Your task to perform on an android device: Open Google Maps Image 0: 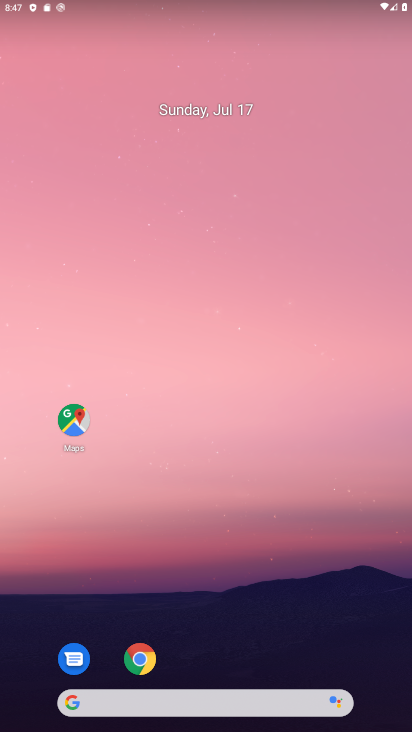
Step 0: click (66, 412)
Your task to perform on an android device: Open Google Maps Image 1: 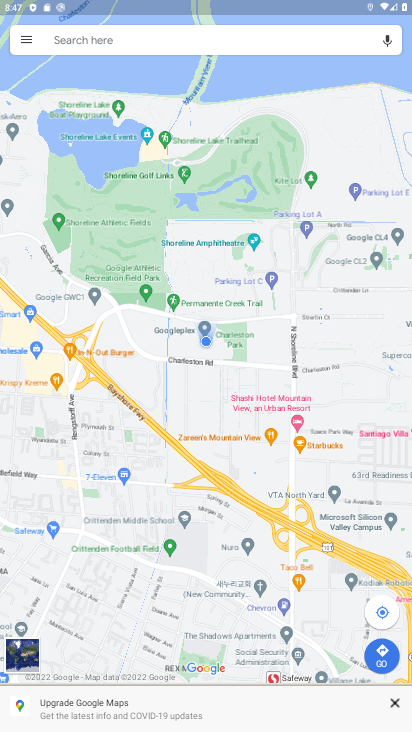
Step 1: task complete